Your task to perform on an android device: all mails in gmail Image 0: 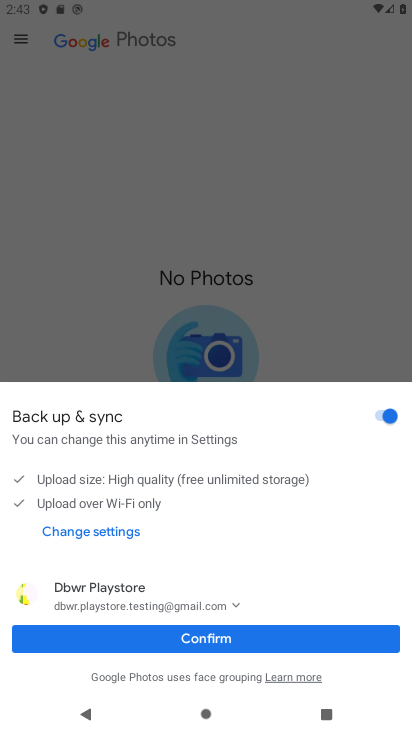
Step 0: press home button
Your task to perform on an android device: all mails in gmail Image 1: 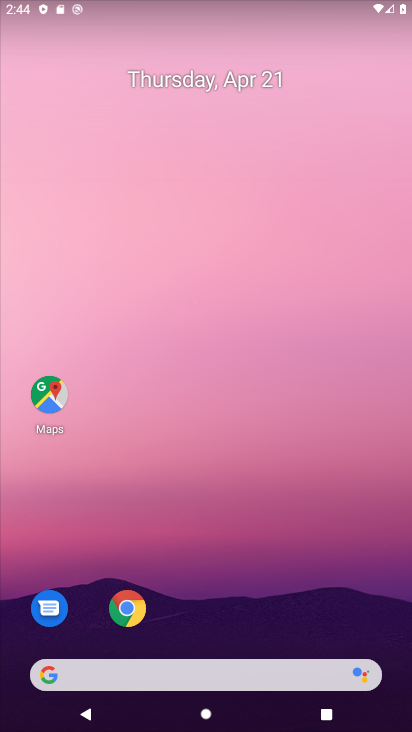
Step 1: drag from (280, 477) to (246, 138)
Your task to perform on an android device: all mails in gmail Image 2: 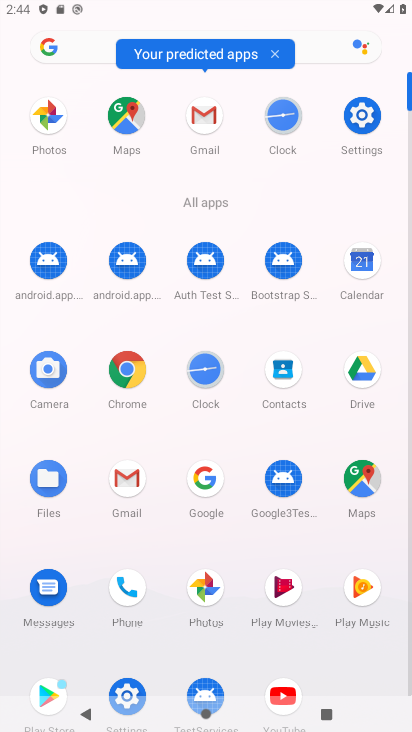
Step 2: click (197, 115)
Your task to perform on an android device: all mails in gmail Image 3: 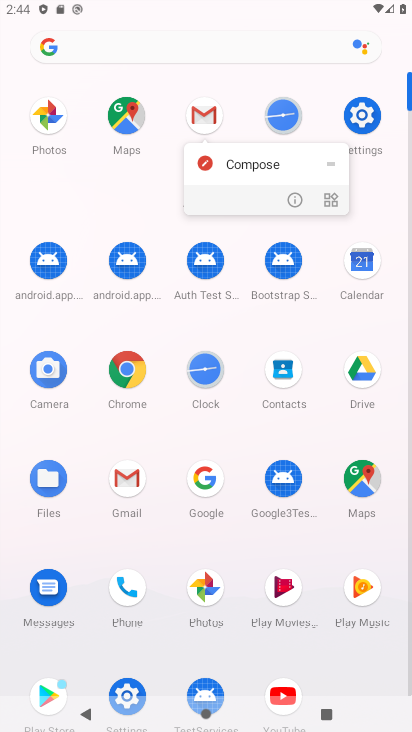
Step 3: click (197, 114)
Your task to perform on an android device: all mails in gmail Image 4: 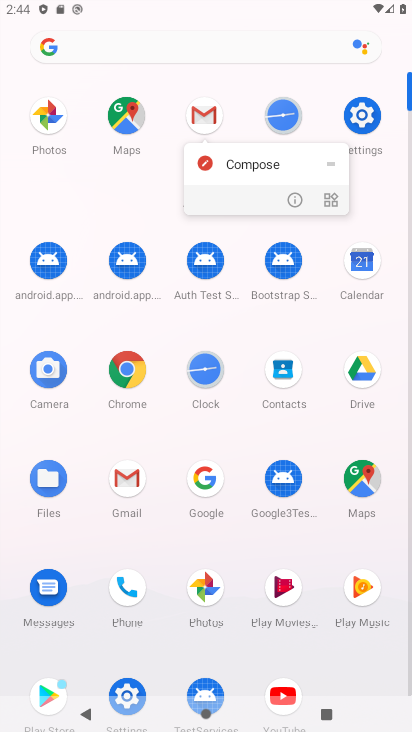
Step 4: click (198, 112)
Your task to perform on an android device: all mails in gmail Image 5: 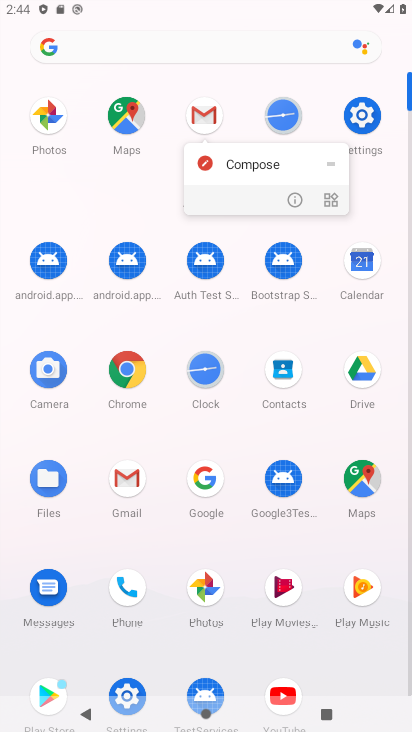
Step 5: click (198, 112)
Your task to perform on an android device: all mails in gmail Image 6: 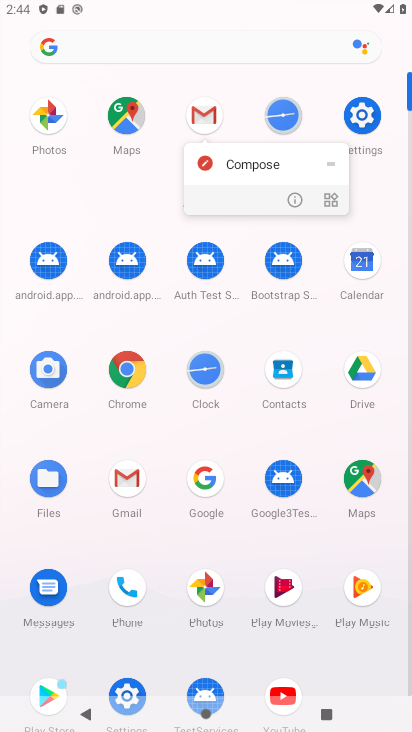
Step 6: click (198, 112)
Your task to perform on an android device: all mails in gmail Image 7: 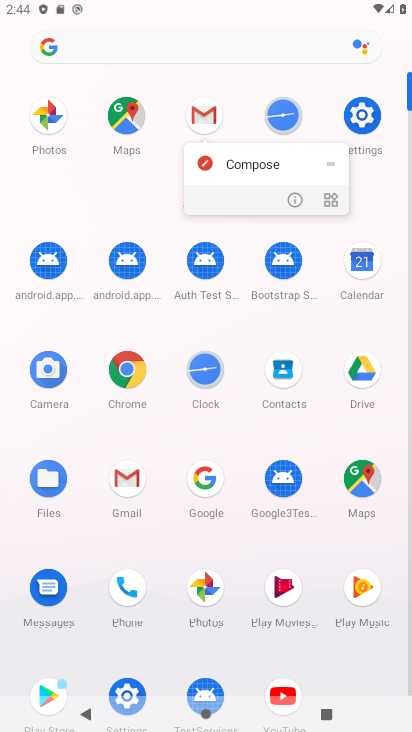
Step 7: click (198, 112)
Your task to perform on an android device: all mails in gmail Image 8: 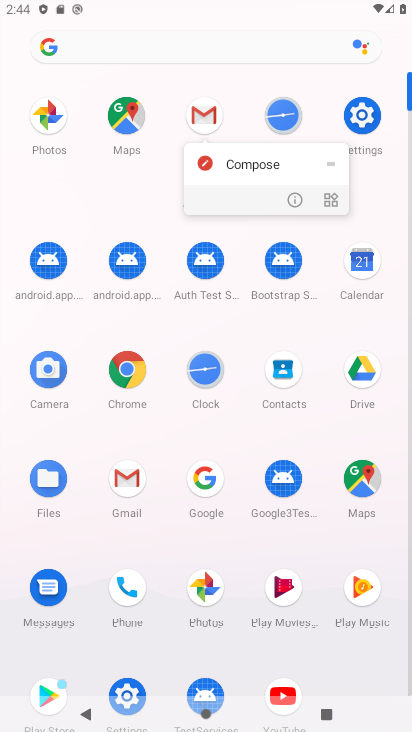
Step 8: click (198, 111)
Your task to perform on an android device: all mails in gmail Image 9: 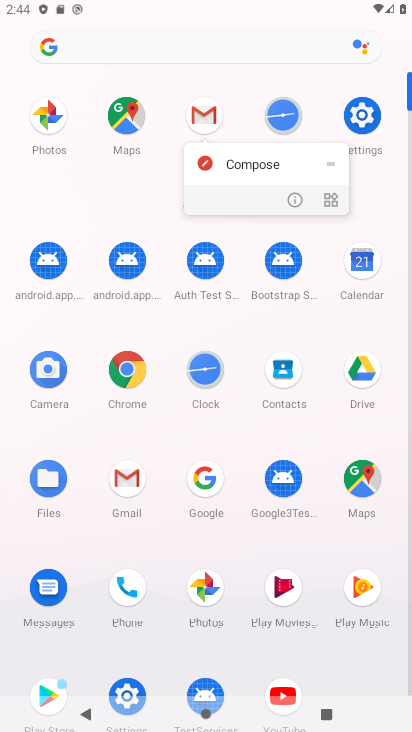
Step 9: click (198, 111)
Your task to perform on an android device: all mails in gmail Image 10: 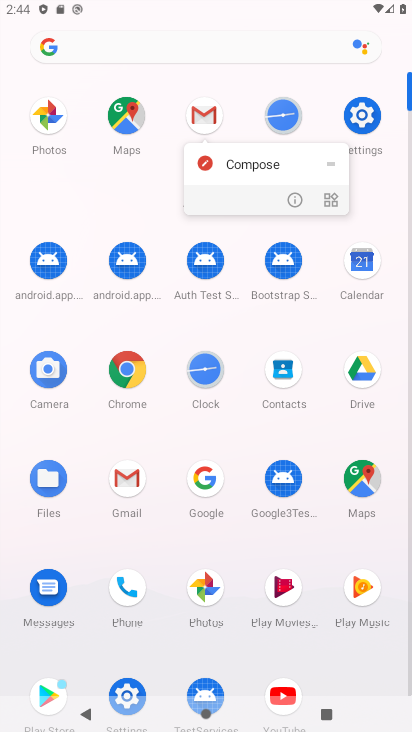
Step 10: click (198, 111)
Your task to perform on an android device: all mails in gmail Image 11: 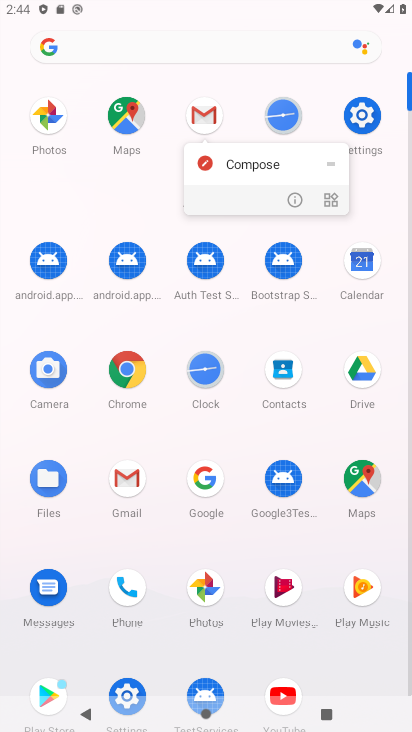
Step 11: click (198, 111)
Your task to perform on an android device: all mails in gmail Image 12: 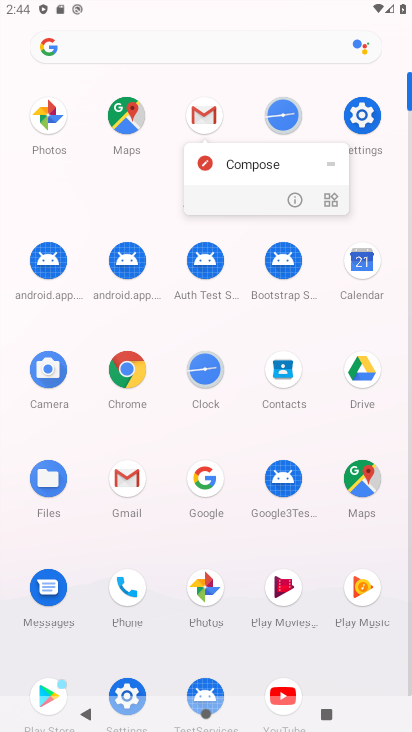
Step 12: click (198, 111)
Your task to perform on an android device: all mails in gmail Image 13: 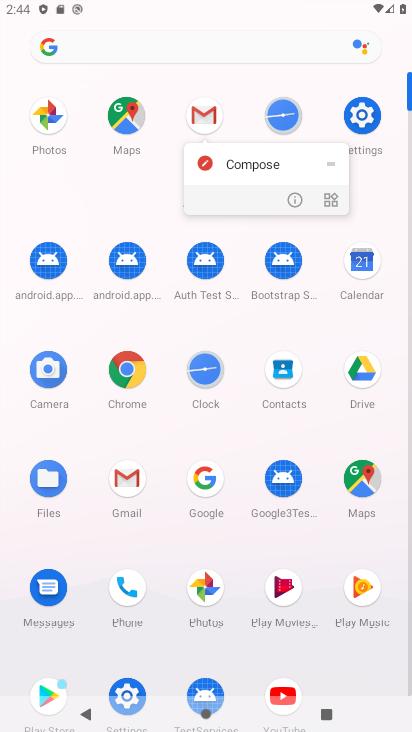
Step 13: click (200, 108)
Your task to perform on an android device: all mails in gmail Image 14: 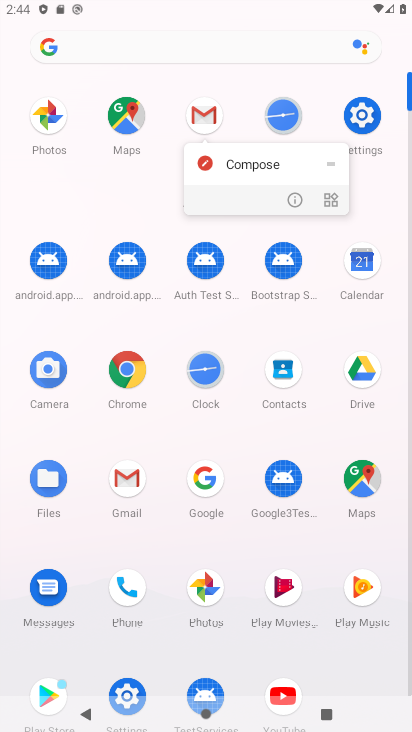
Step 14: click (200, 108)
Your task to perform on an android device: all mails in gmail Image 15: 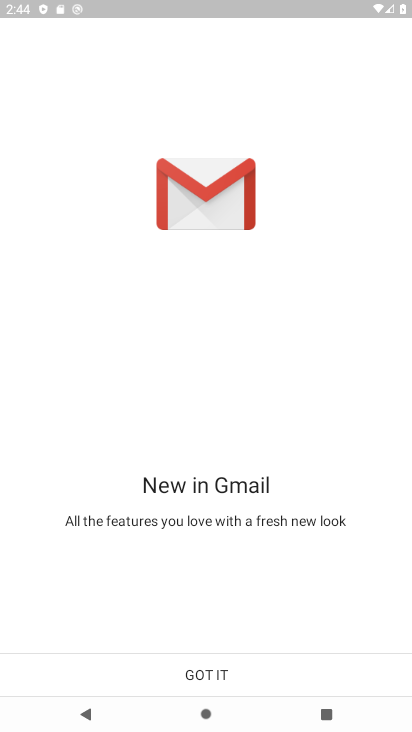
Step 15: click (227, 675)
Your task to perform on an android device: all mails in gmail Image 16: 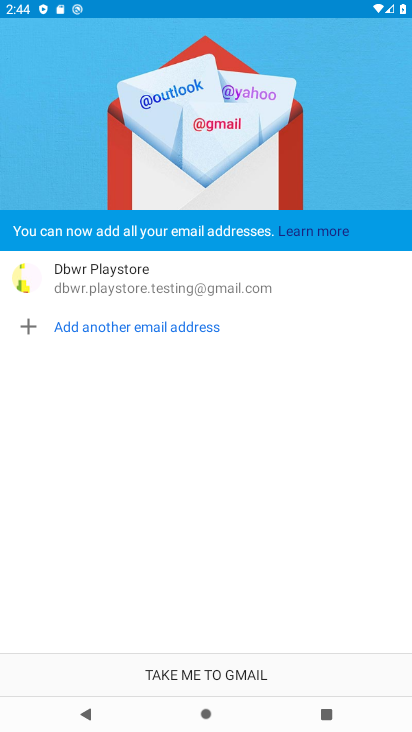
Step 16: click (167, 678)
Your task to perform on an android device: all mails in gmail Image 17: 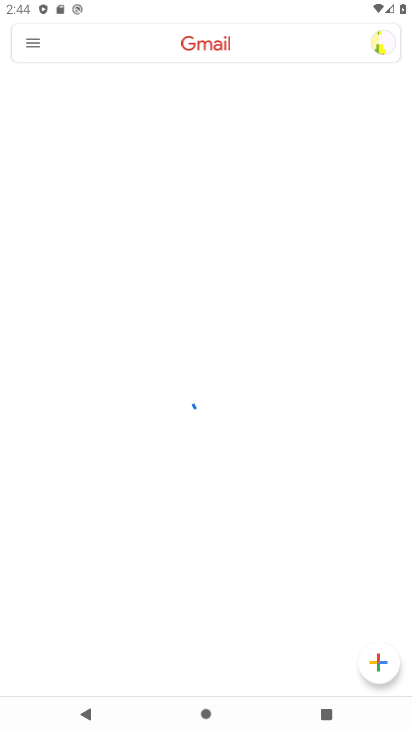
Step 17: click (33, 41)
Your task to perform on an android device: all mails in gmail Image 18: 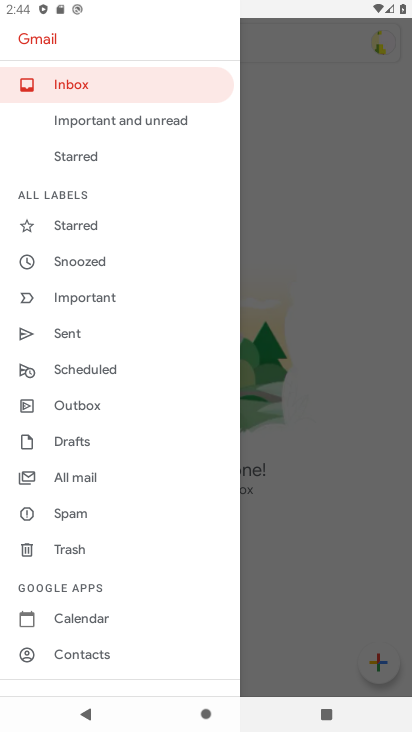
Step 18: click (76, 472)
Your task to perform on an android device: all mails in gmail Image 19: 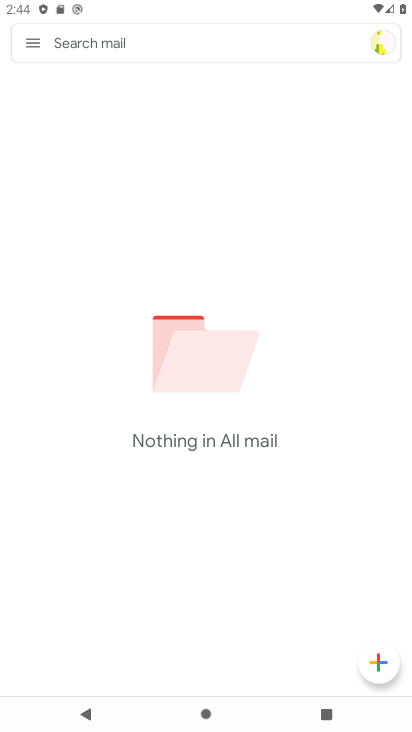
Step 19: task complete